Your task to perform on an android device: snooze an email in the gmail app Image 0: 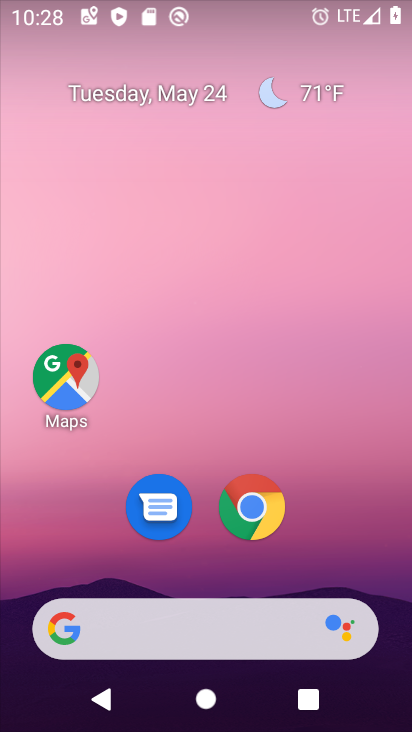
Step 0: drag from (235, 720) to (176, 80)
Your task to perform on an android device: snooze an email in the gmail app Image 1: 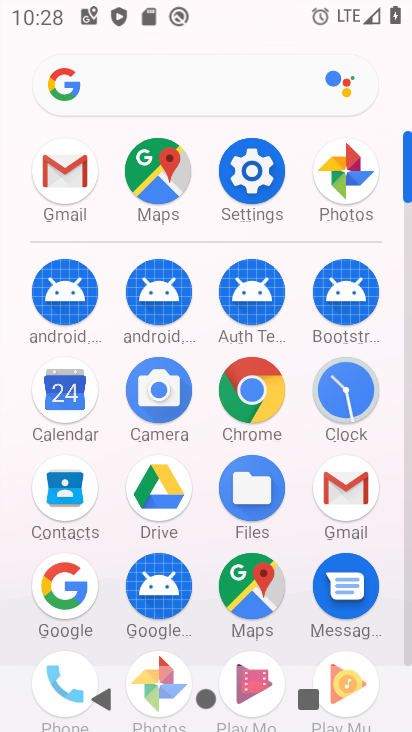
Step 1: click (341, 492)
Your task to perform on an android device: snooze an email in the gmail app Image 2: 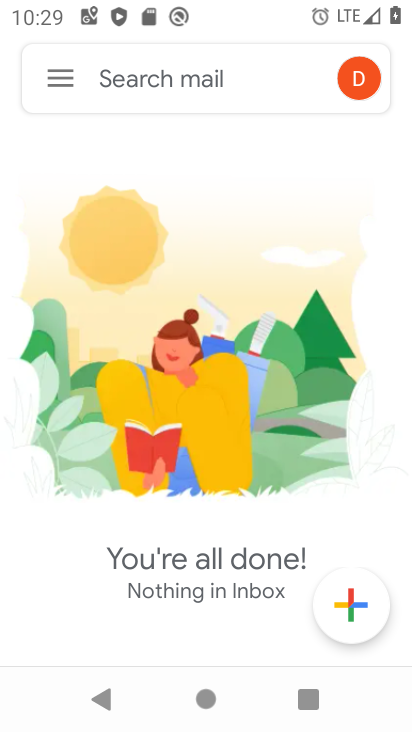
Step 2: task complete